Your task to perform on an android device: turn off location history Image 0: 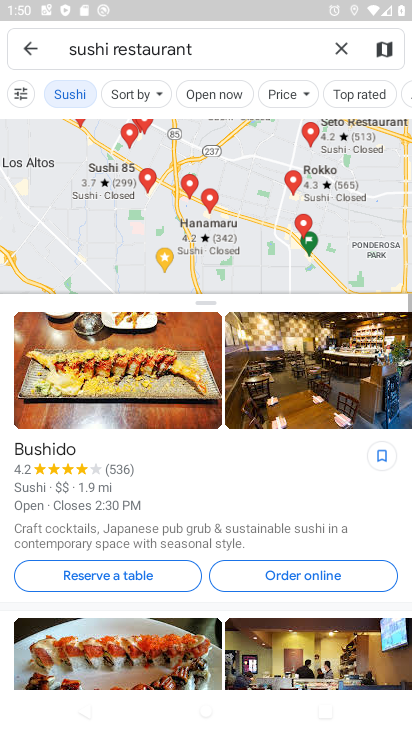
Step 0: drag from (239, 538) to (289, 254)
Your task to perform on an android device: turn off location history Image 1: 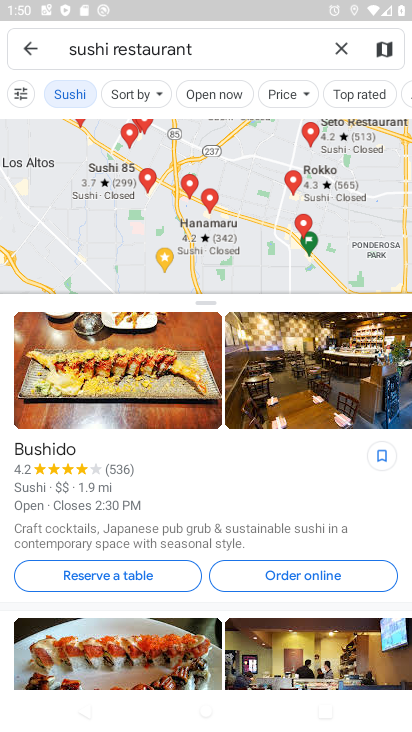
Step 1: click (24, 43)
Your task to perform on an android device: turn off location history Image 2: 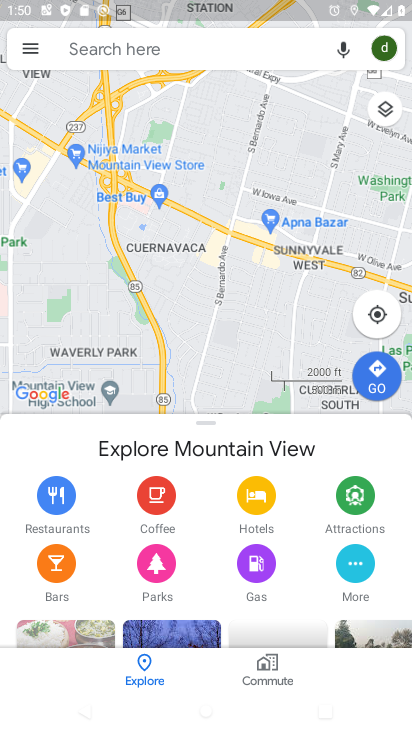
Step 2: click (36, 35)
Your task to perform on an android device: turn off location history Image 3: 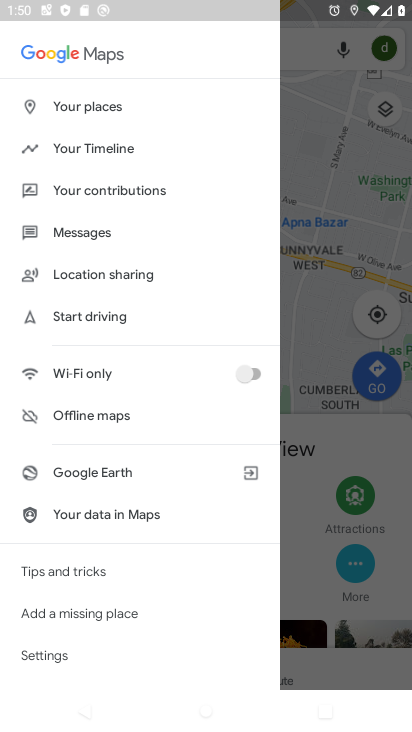
Step 3: drag from (146, 519) to (165, 303)
Your task to perform on an android device: turn off location history Image 4: 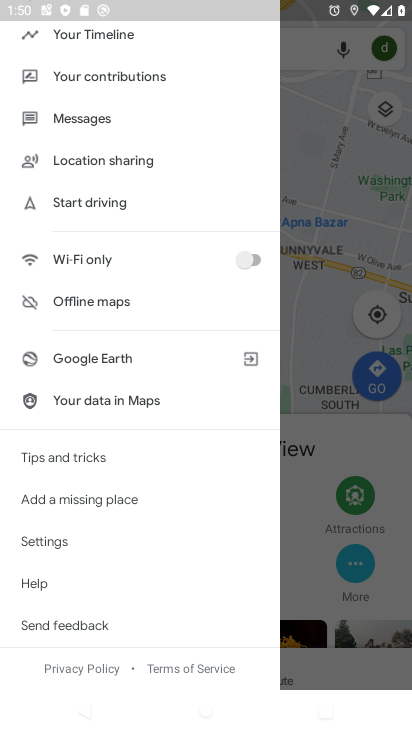
Step 4: click (59, 541)
Your task to perform on an android device: turn off location history Image 5: 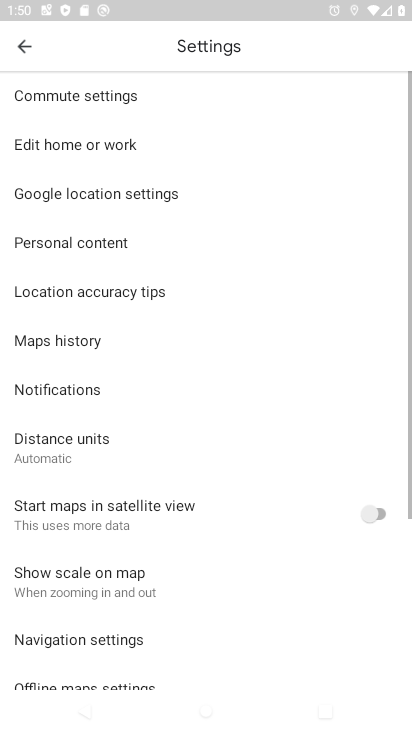
Step 5: drag from (97, 498) to (138, 315)
Your task to perform on an android device: turn off location history Image 6: 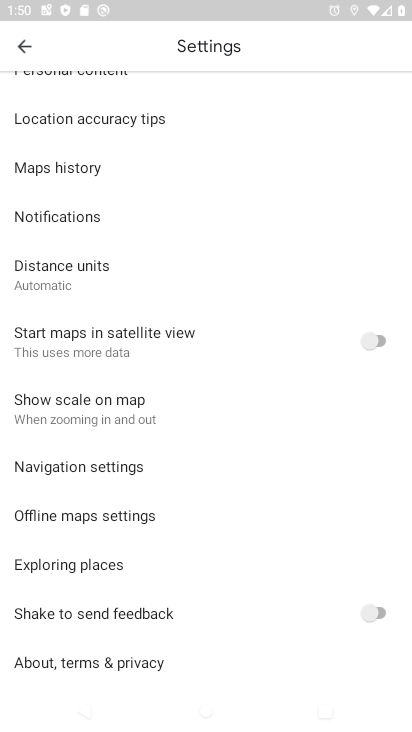
Step 6: drag from (185, 270) to (253, 728)
Your task to perform on an android device: turn off location history Image 7: 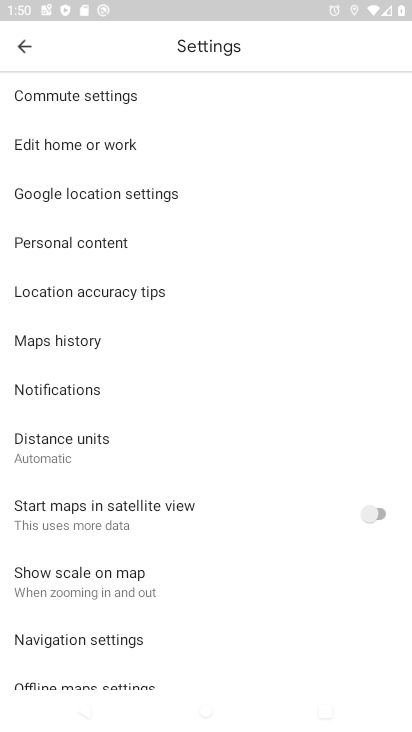
Step 7: click (21, 48)
Your task to perform on an android device: turn off location history Image 8: 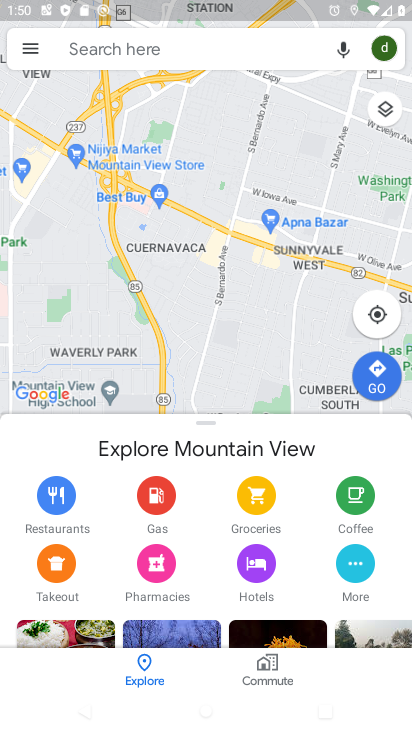
Step 8: click (18, 46)
Your task to perform on an android device: turn off location history Image 9: 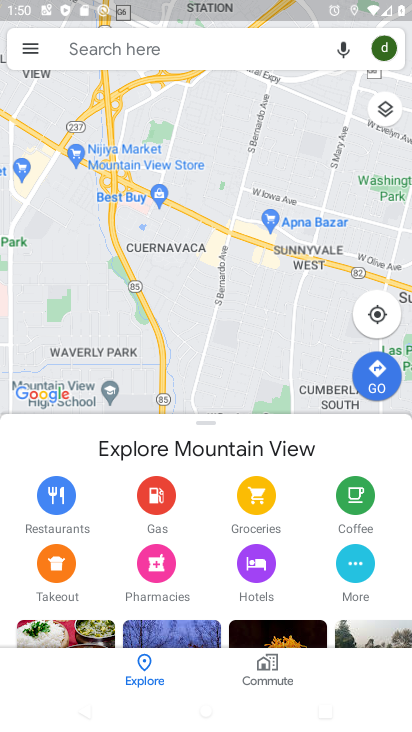
Step 9: click (40, 45)
Your task to perform on an android device: turn off location history Image 10: 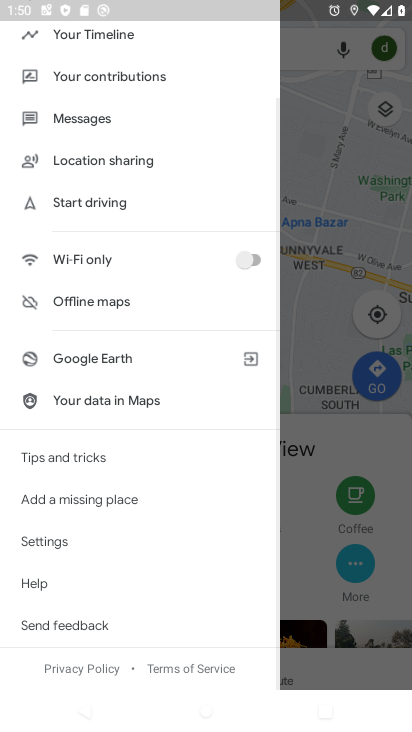
Step 10: click (59, 538)
Your task to perform on an android device: turn off location history Image 11: 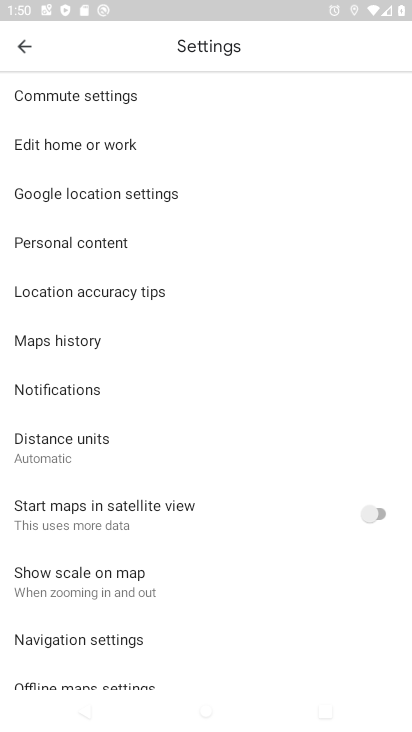
Step 11: drag from (147, 591) to (236, 88)
Your task to perform on an android device: turn off location history Image 12: 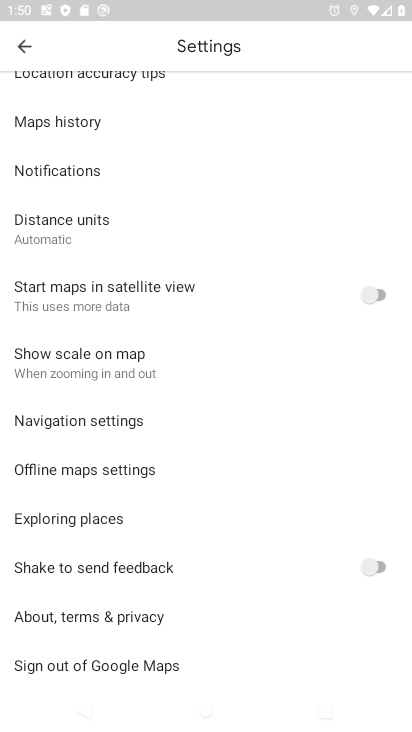
Step 12: drag from (161, 581) to (203, 257)
Your task to perform on an android device: turn off location history Image 13: 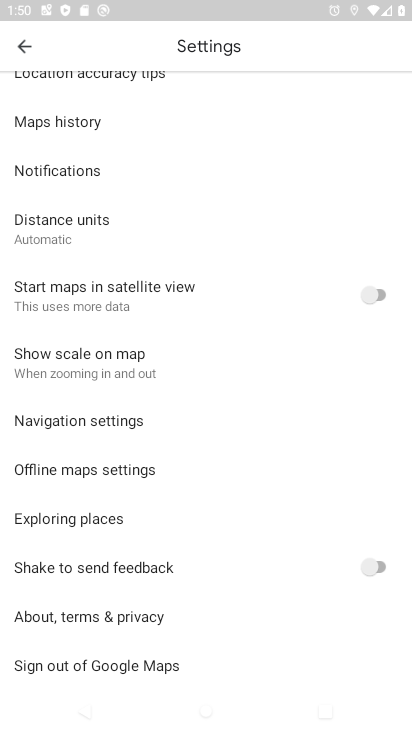
Step 13: drag from (215, 203) to (176, 532)
Your task to perform on an android device: turn off location history Image 14: 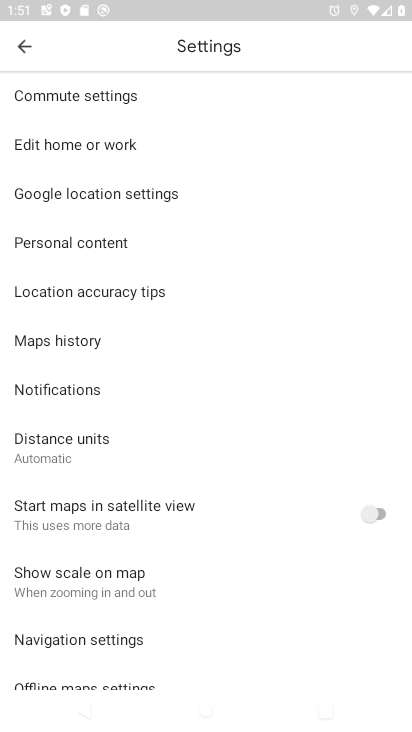
Step 14: click (117, 286)
Your task to perform on an android device: turn off location history Image 15: 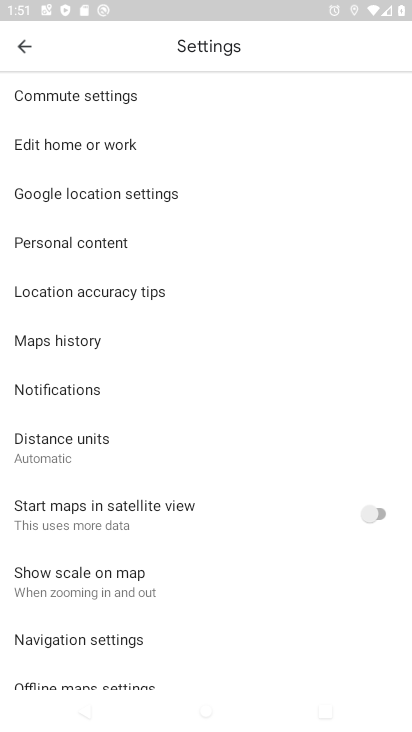
Step 15: click (144, 185)
Your task to perform on an android device: turn off location history Image 16: 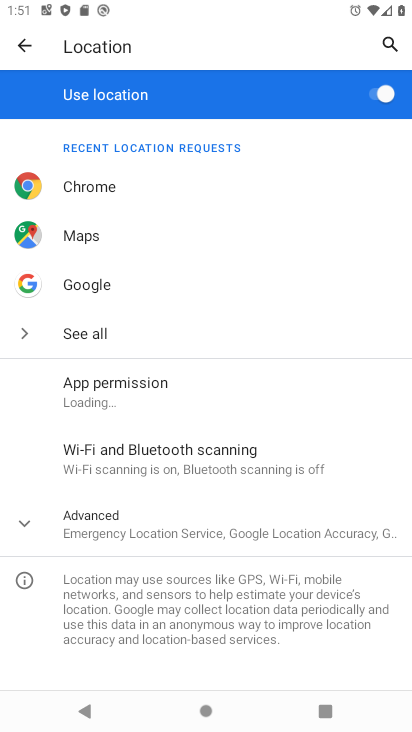
Step 16: click (140, 535)
Your task to perform on an android device: turn off location history Image 17: 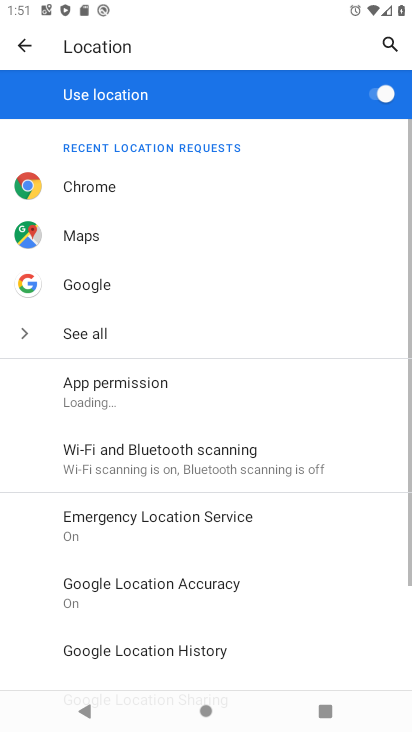
Step 17: drag from (138, 535) to (238, 175)
Your task to perform on an android device: turn off location history Image 18: 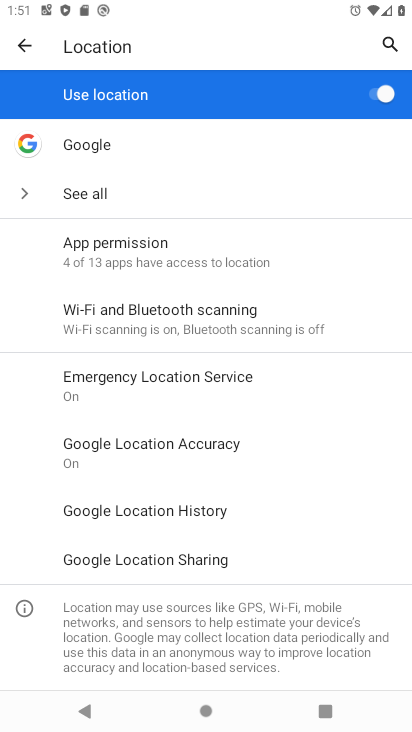
Step 18: click (200, 505)
Your task to perform on an android device: turn off location history Image 19: 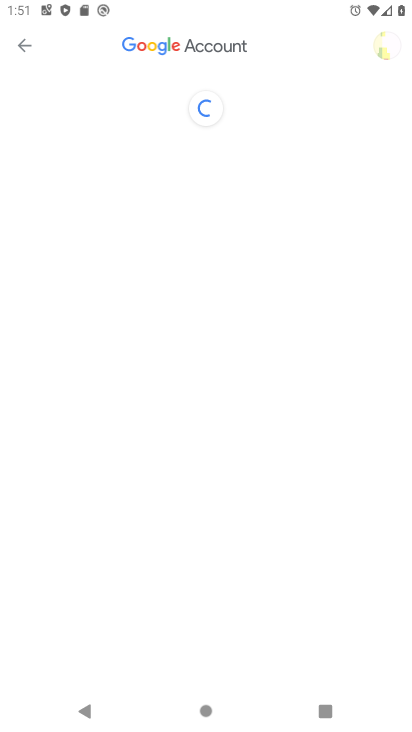
Step 19: drag from (212, 551) to (232, 176)
Your task to perform on an android device: turn off location history Image 20: 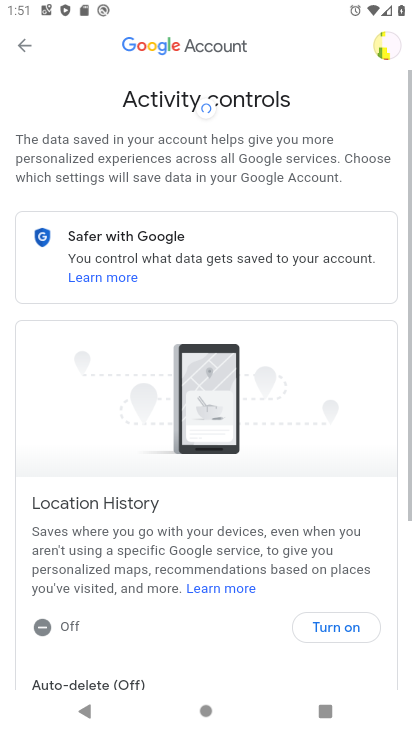
Step 20: click (317, 398)
Your task to perform on an android device: turn off location history Image 21: 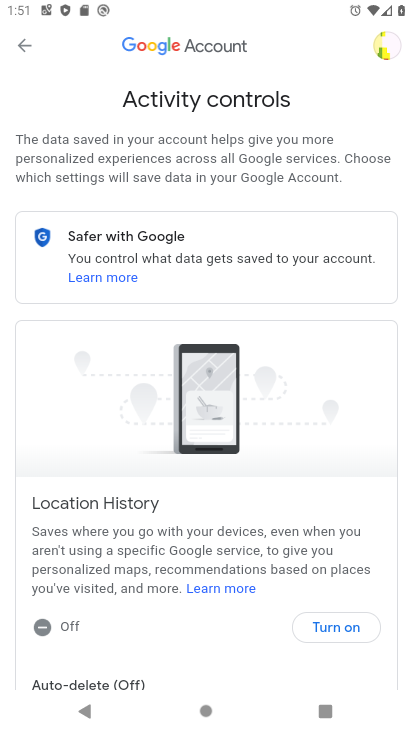
Step 21: click (334, 624)
Your task to perform on an android device: turn off location history Image 22: 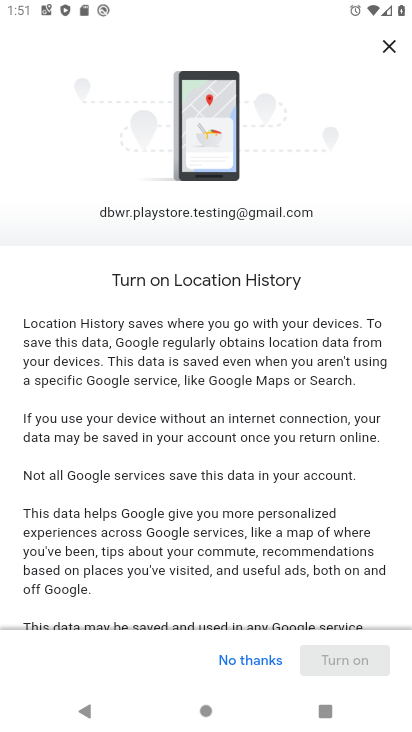
Step 22: drag from (248, 589) to (287, 317)
Your task to perform on an android device: turn off location history Image 23: 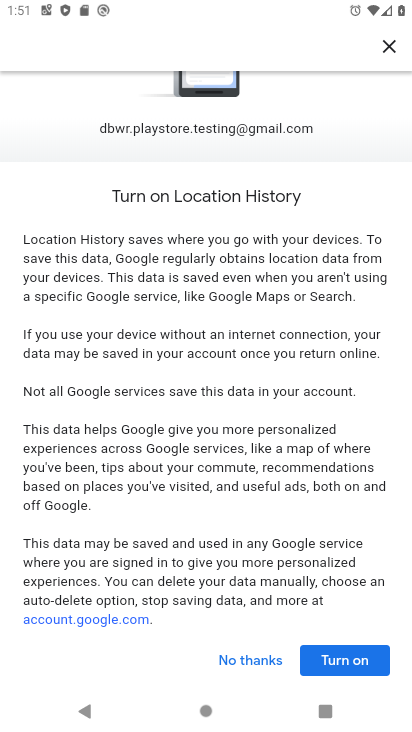
Step 23: drag from (226, 572) to (268, 290)
Your task to perform on an android device: turn off location history Image 24: 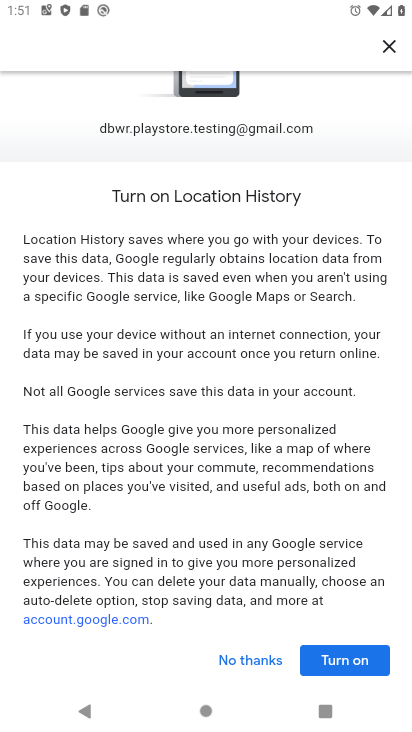
Step 24: click (352, 648)
Your task to perform on an android device: turn off location history Image 25: 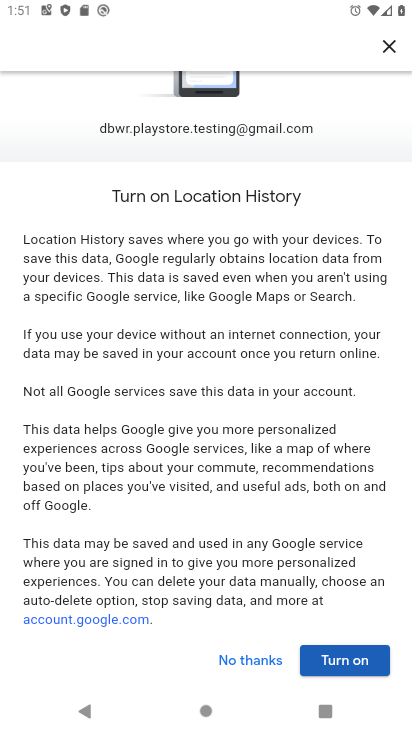
Step 25: drag from (243, 596) to (280, 458)
Your task to perform on an android device: turn off location history Image 26: 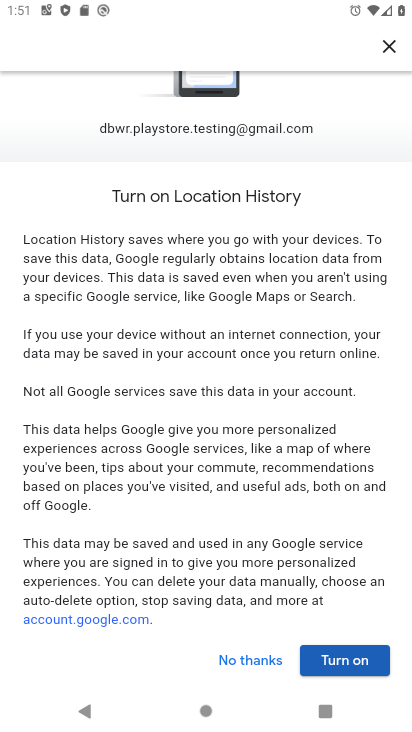
Step 26: drag from (176, 639) to (235, 343)
Your task to perform on an android device: turn off location history Image 27: 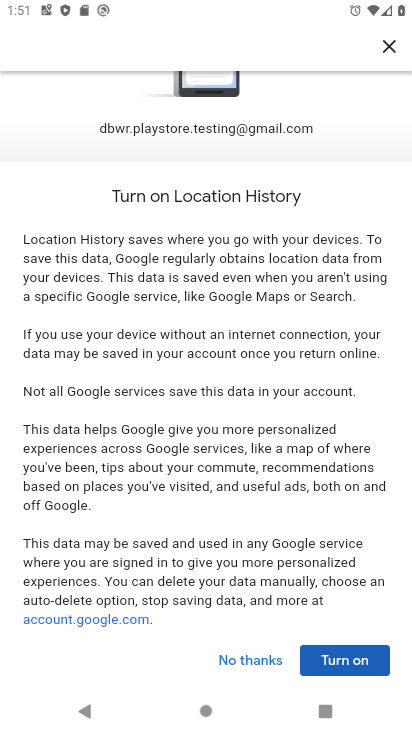
Step 27: drag from (188, 629) to (254, 375)
Your task to perform on an android device: turn off location history Image 28: 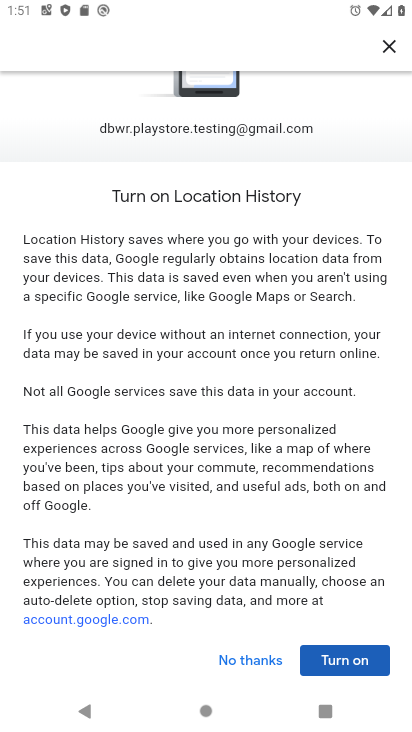
Step 28: drag from (202, 645) to (251, 422)
Your task to perform on an android device: turn off location history Image 29: 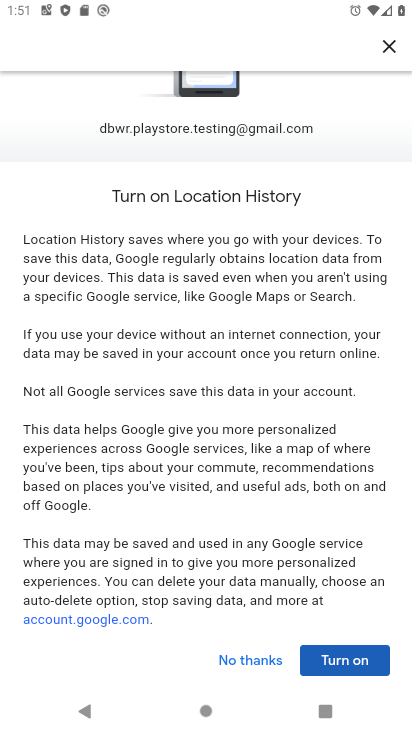
Step 29: drag from (192, 622) to (210, 472)
Your task to perform on an android device: turn off location history Image 30: 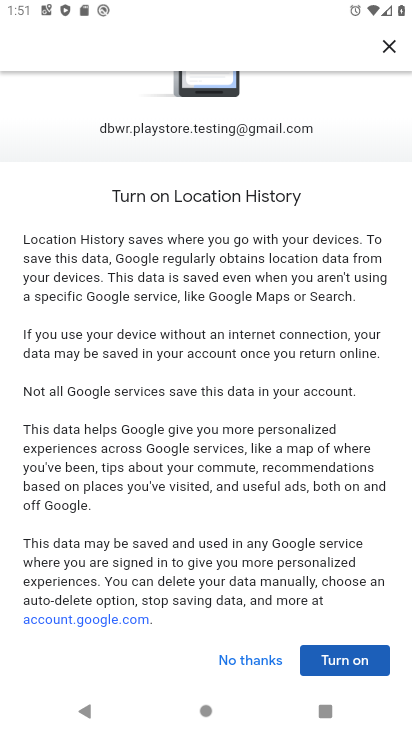
Step 30: drag from (187, 633) to (238, 435)
Your task to perform on an android device: turn off location history Image 31: 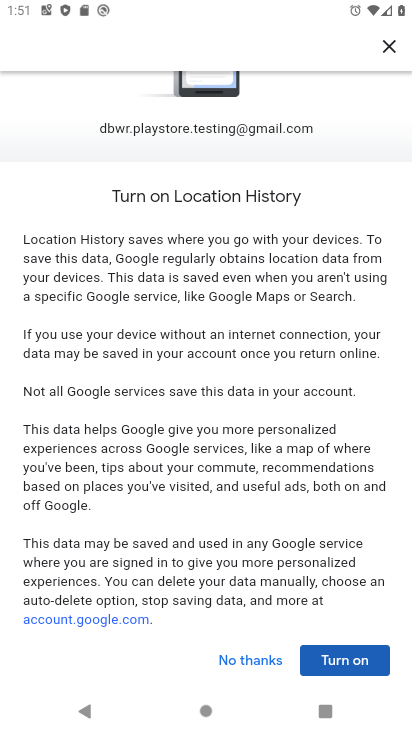
Step 31: drag from (201, 631) to (293, 226)
Your task to perform on an android device: turn off location history Image 32: 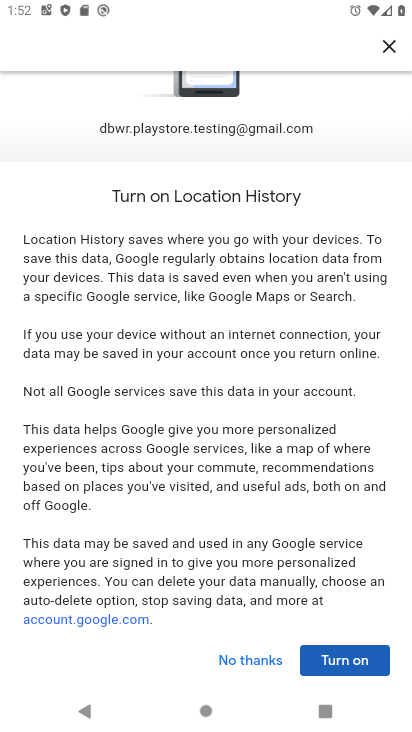
Step 32: drag from (187, 593) to (229, 345)
Your task to perform on an android device: turn off location history Image 33: 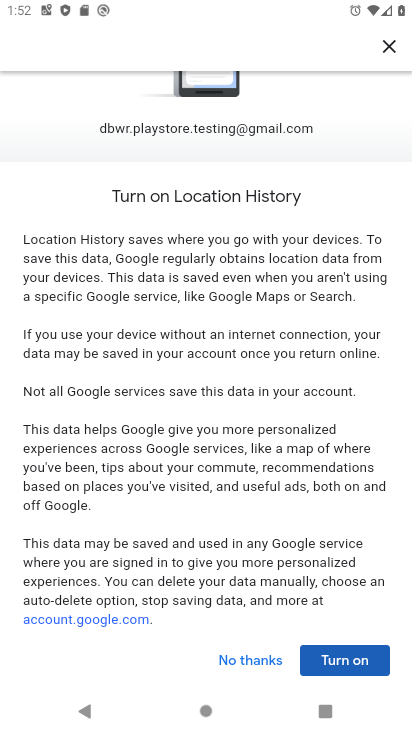
Step 33: drag from (177, 643) to (225, 367)
Your task to perform on an android device: turn off location history Image 34: 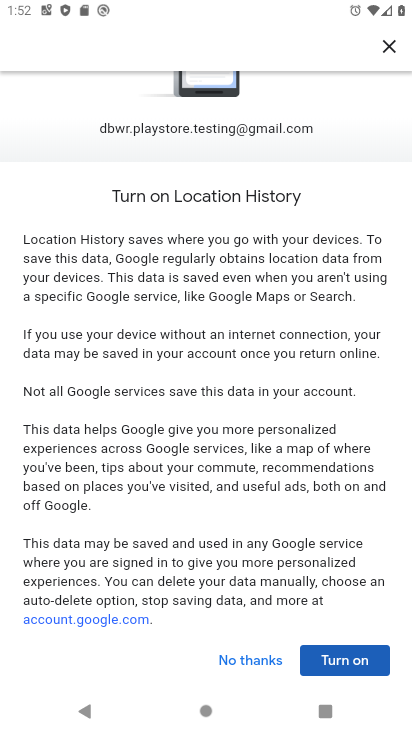
Step 34: drag from (175, 615) to (218, 305)
Your task to perform on an android device: turn off location history Image 35: 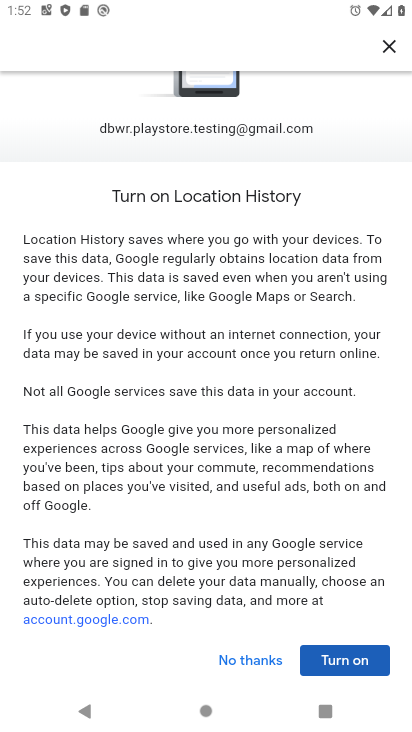
Step 35: drag from (164, 634) to (226, 360)
Your task to perform on an android device: turn off location history Image 36: 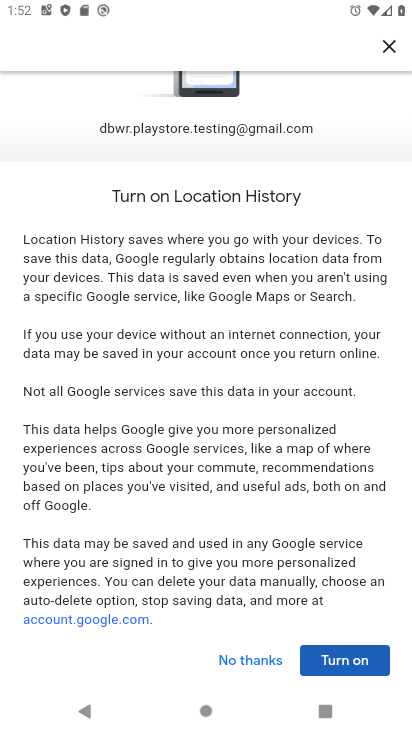
Step 36: drag from (180, 651) to (235, 314)
Your task to perform on an android device: turn off location history Image 37: 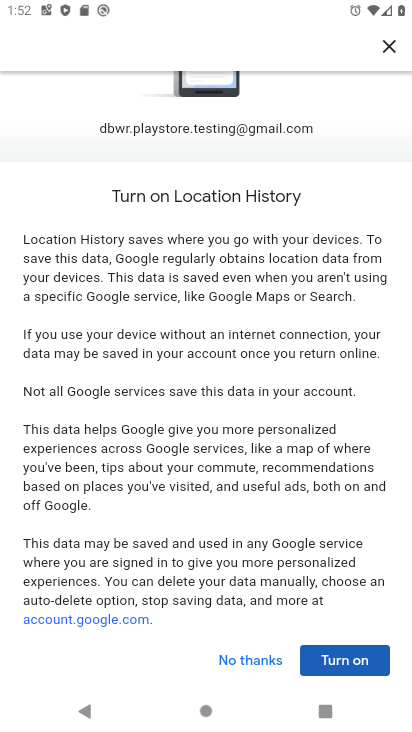
Step 37: drag from (155, 640) to (265, 199)
Your task to perform on an android device: turn off location history Image 38: 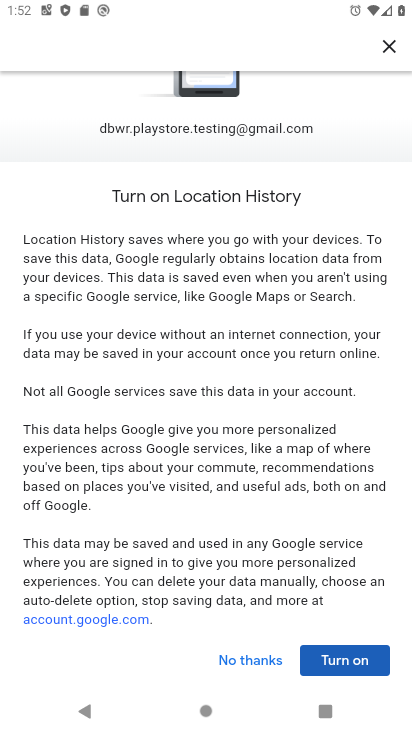
Step 38: drag from (154, 609) to (249, 309)
Your task to perform on an android device: turn off location history Image 39: 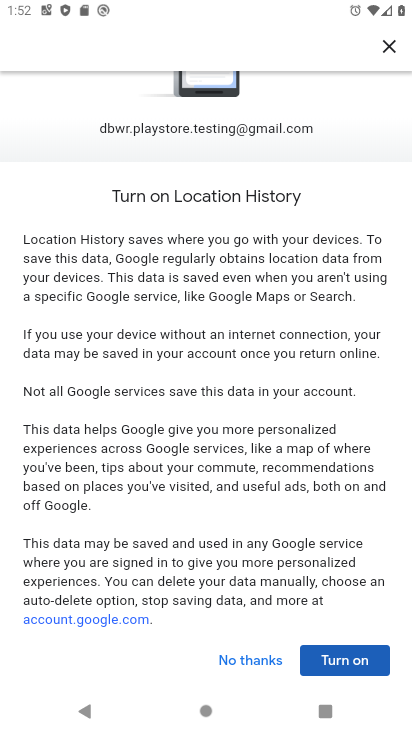
Step 39: drag from (258, 181) to (242, 581)
Your task to perform on an android device: turn off location history Image 40: 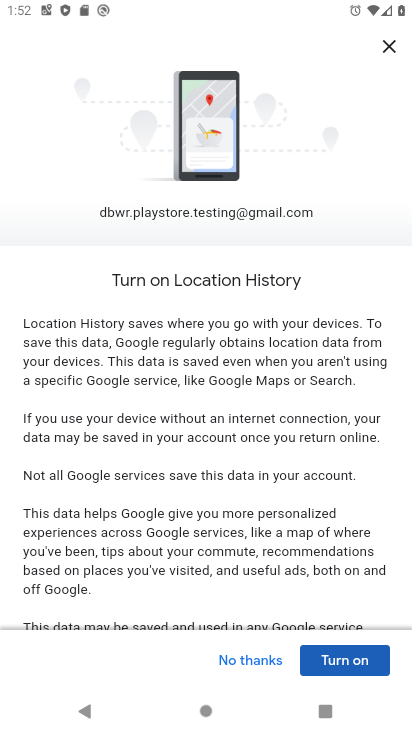
Step 40: click (354, 668)
Your task to perform on an android device: turn off location history Image 41: 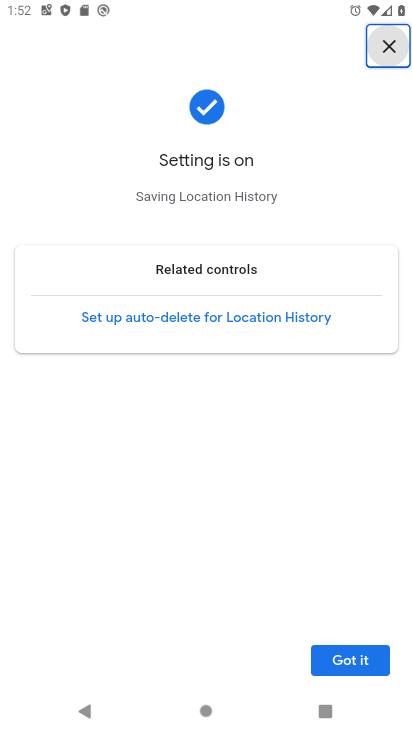
Step 41: click (348, 659)
Your task to perform on an android device: turn off location history Image 42: 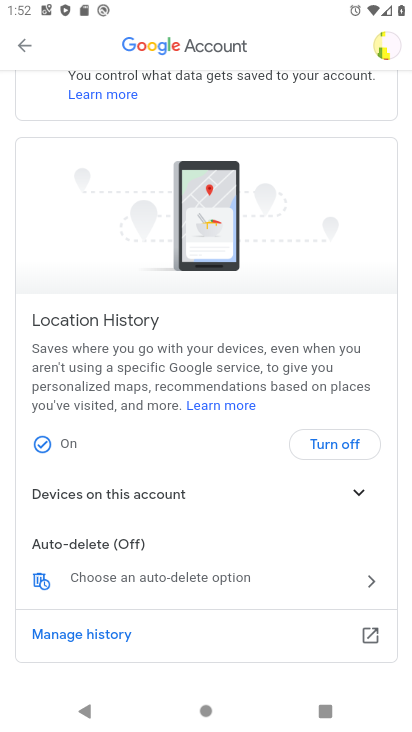
Step 42: task complete